Your task to perform on an android device: check android version Image 0: 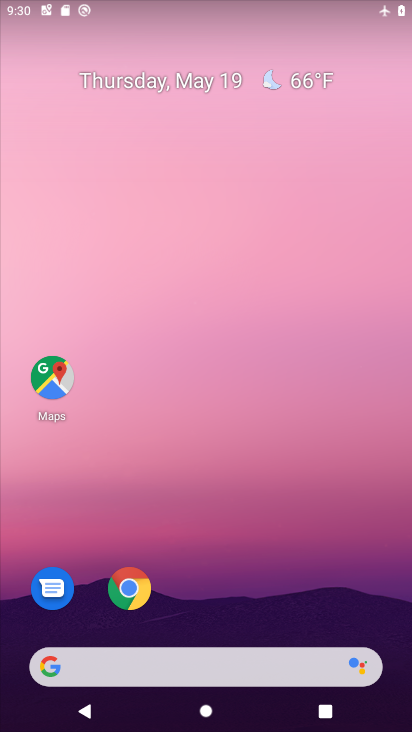
Step 0: drag from (373, 604) to (354, 176)
Your task to perform on an android device: check android version Image 1: 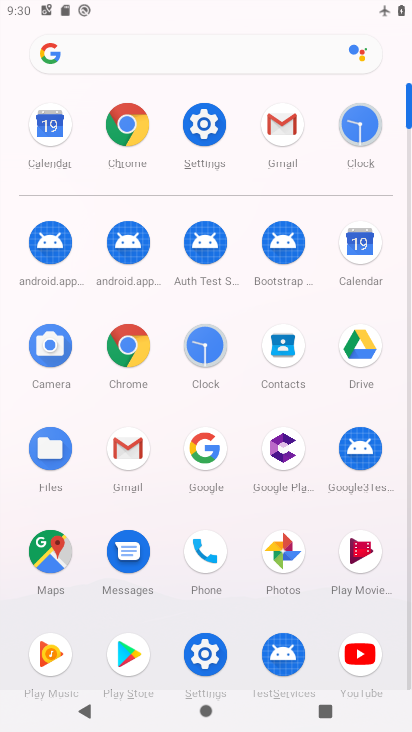
Step 1: click (210, 661)
Your task to perform on an android device: check android version Image 2: 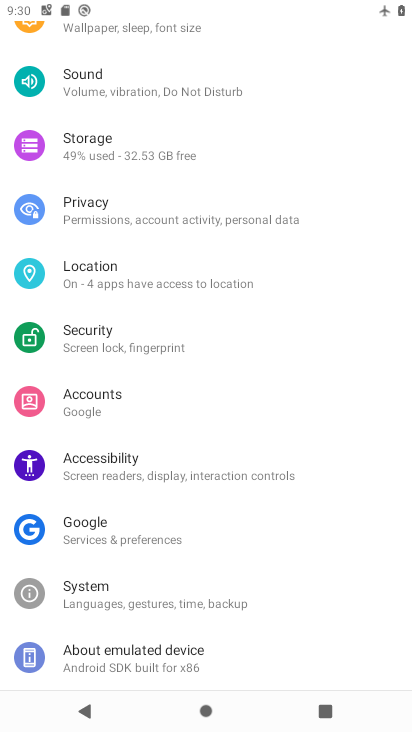
Step 2: drag from (346, 336) to (343, 462)
Your task to perform on an android device: check android version Image 3: 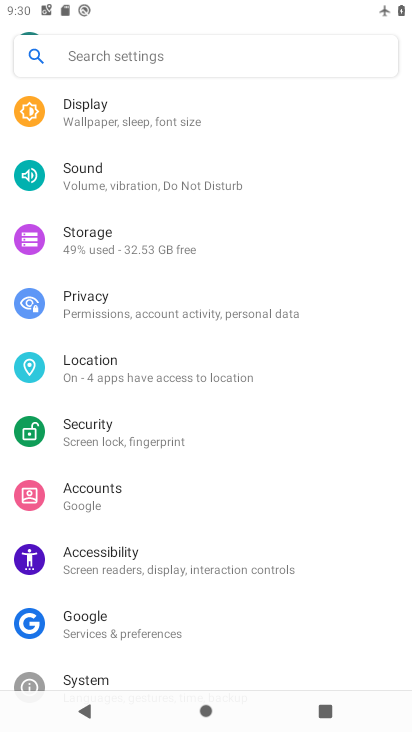
Step 3: drag from (350, 259) to (338, 383)
Your task to perform on an android device: check android version Image 4: 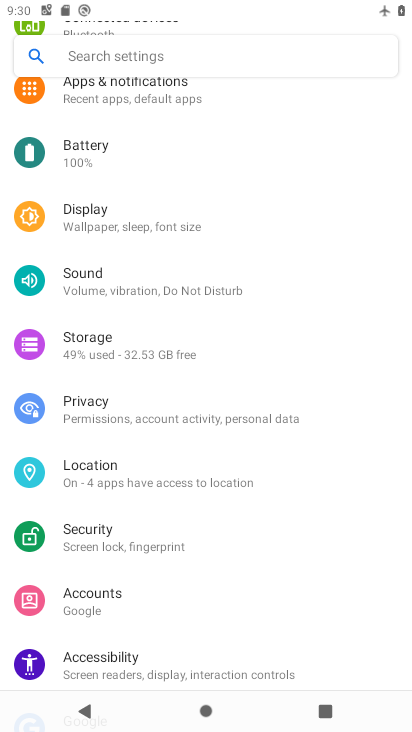
Step 4: drag from (359, 205) to (347, 356)
Your task to perform on an android device: check android version Image 5: 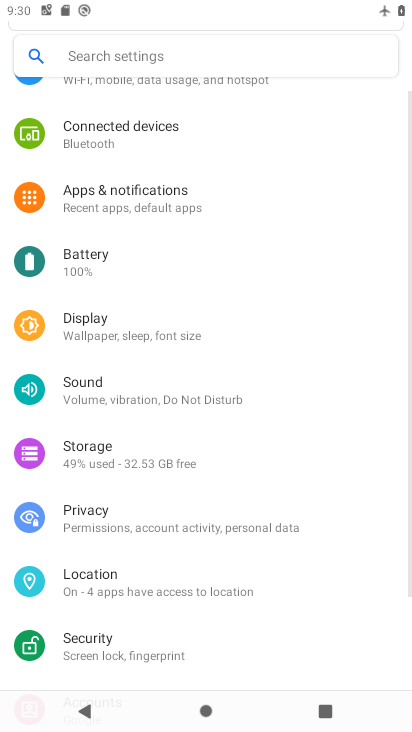
Step 5: drag from (344, 195) to (339, 329)
Your task to perform on an android device: check android version Image 6: 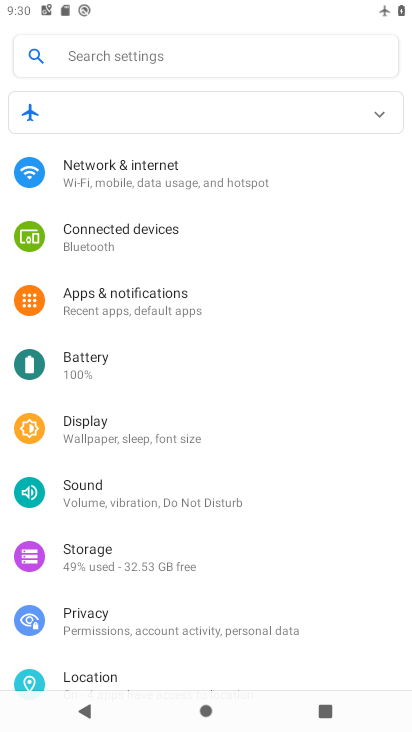
Step 6: drag from (333, 203) to (315, 324)
Your task to perform on an android device: check android version Image 7: 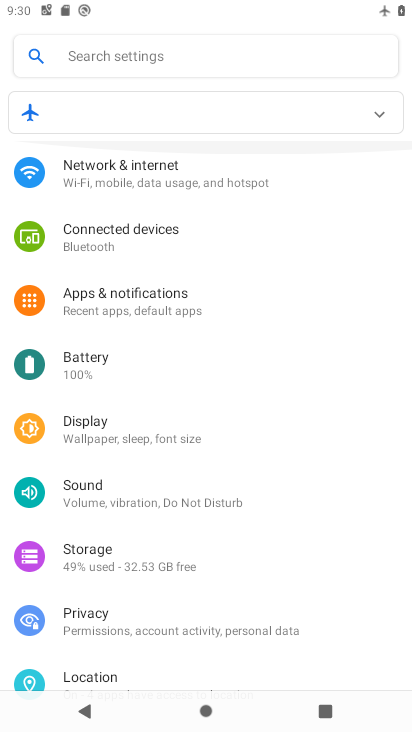
Step 7: drag from (329, 462) to (335, 326)
Your task to perform on an android device: check android version Image 8: 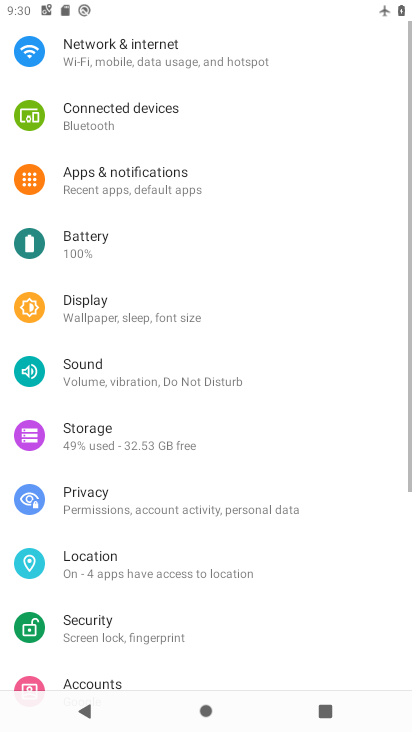
Step 8: drag from (330, 466) to (333, 323)
Your task to perform on an android device: check android version Image 9: 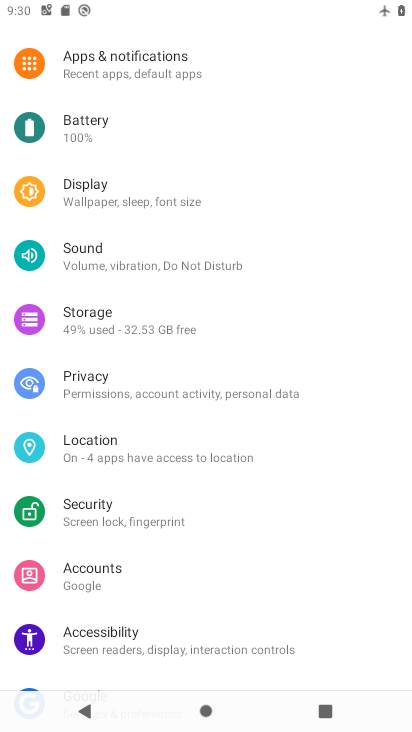
Step 9: drag from (328, 510) to (337, 389)
Your task to perform on an android device: check android version Image 10: 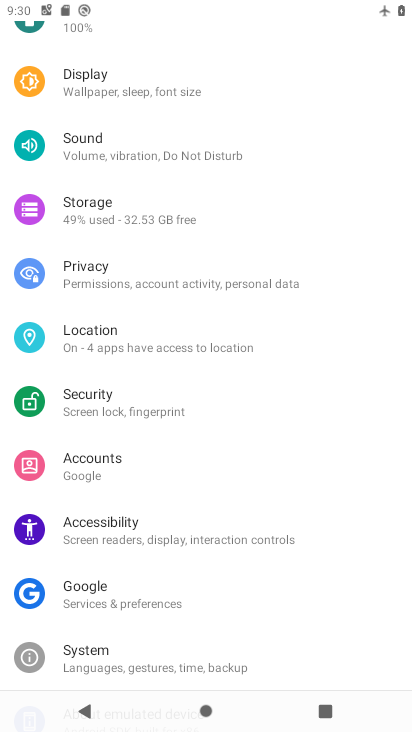
Step 10: drag from (350, 574) to (344, 445)
Your task to perform on an android device: check android version Image 11: 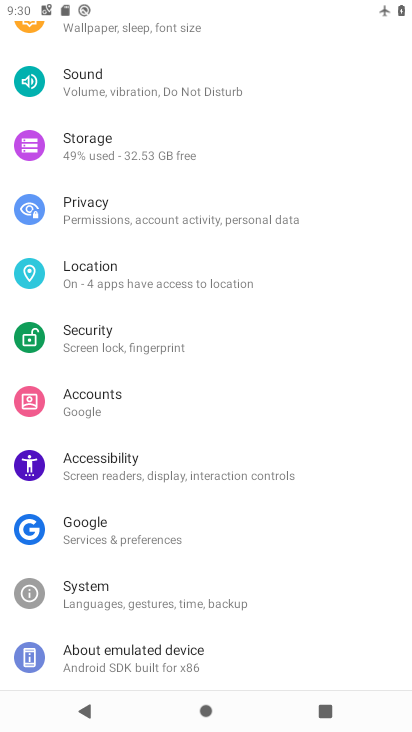
Step 11: click (210, 608)
Your task to perform on an android device: check android version Image 12: 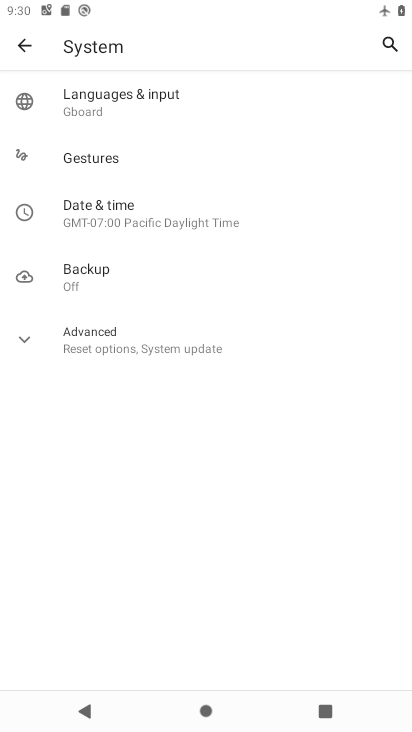
Step 12: click (212, 352)
Your task to perform on an android device: check android version Image 13: 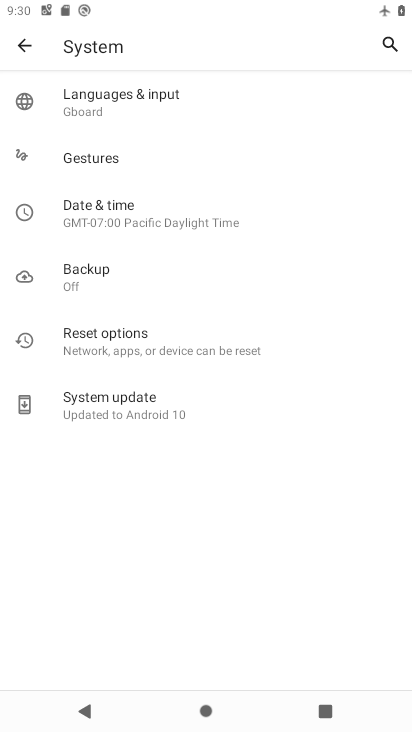
Step 13: click (188, 411)
Your task to perform on an android device: check android version Image 14: 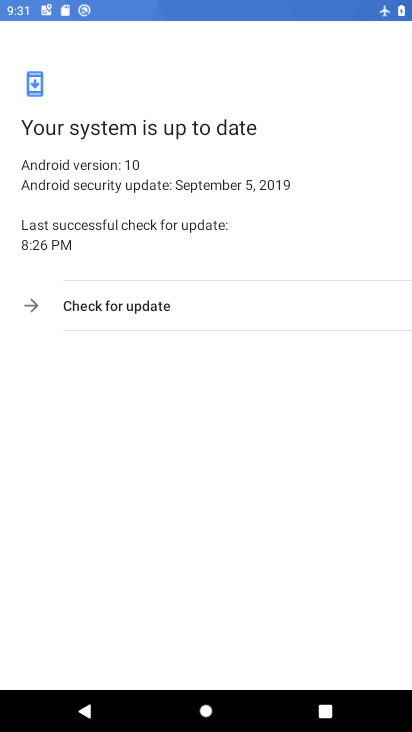
Step 14: task complete